Your task to perform on an android device: change your default location settings in chrome Image 0: 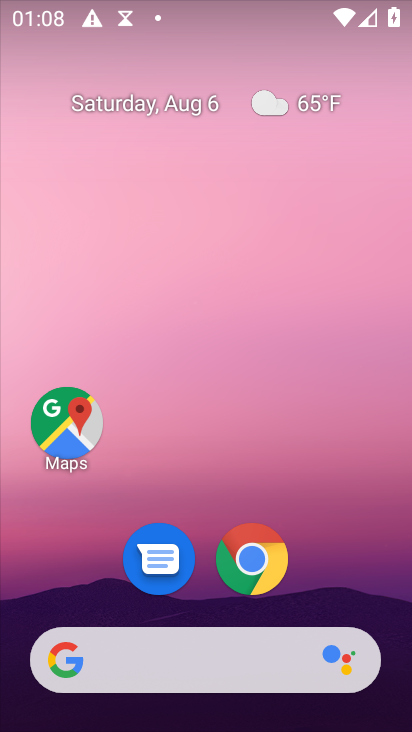
Step 0: click (255, 575)
Your task to perform on an android device: change your default location settings in chrome Image 1: 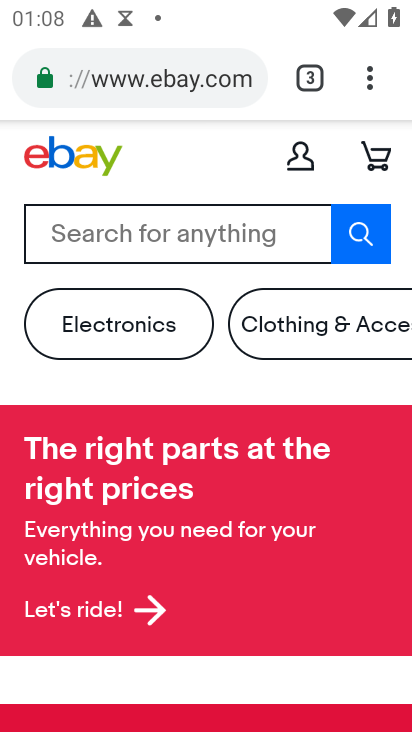
Step 1: click (376, 90)
Your task to perform on an android device: change your default location settings in chrome Image 2: 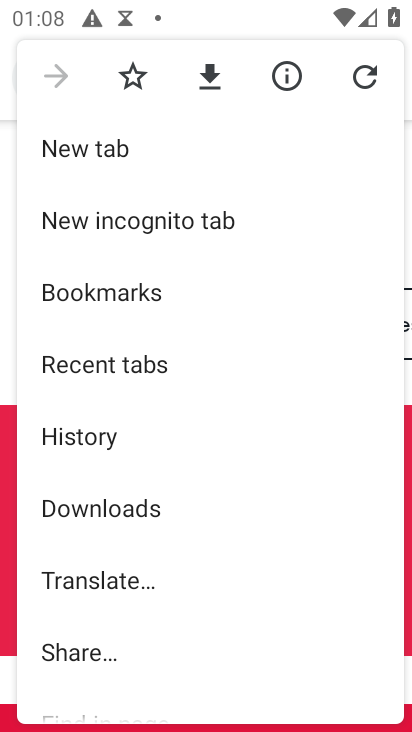
Step 2: drag from (214, 665) to (138, 255)
Your task to perform on an android device: change your default location settings in chrome Image 3: 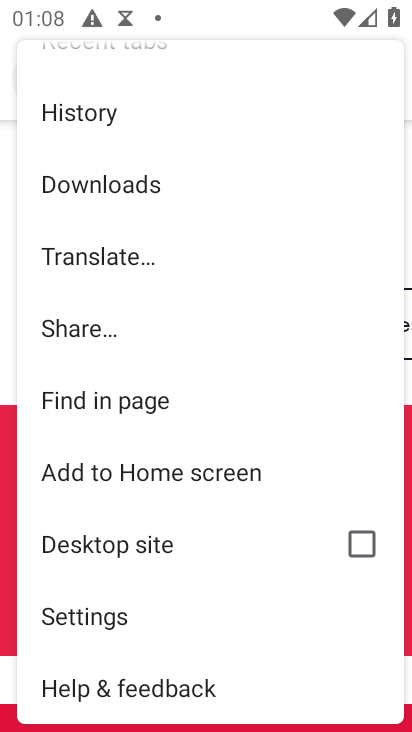
Step 3: click (137, 620)
Your task to perform on an android device: change your default location settings in chrome Image 4: 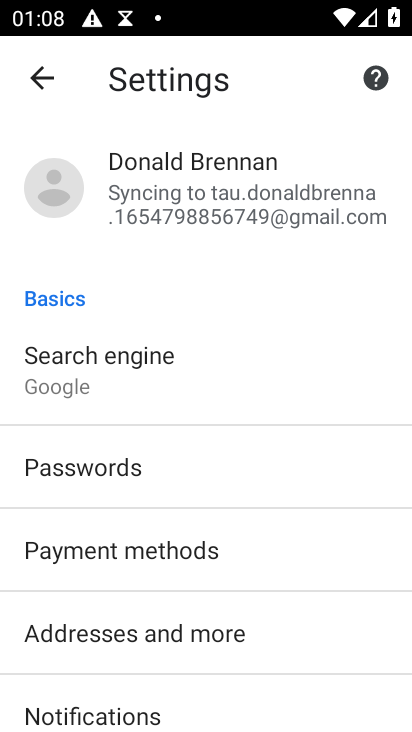
Step 4: drag from (230, 671) to (194, 276)
Your task to perform on an android device: change your default location settings in chrome Image 5: 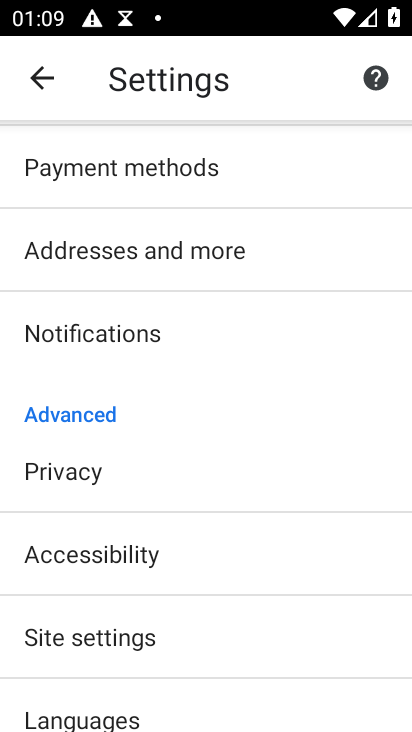
Step 5: click (215, 637)
Your task to perform on an android device: change your default location settings in chrome Image 6: 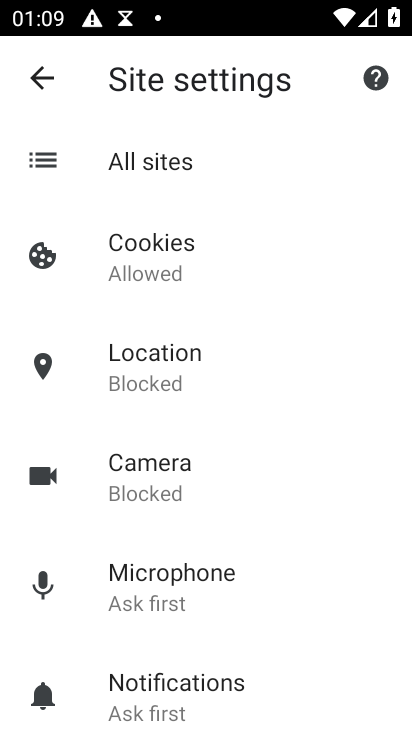
Step 6: click (221, 362)
Your task to perform on an android device: change your default location settings in chrome Image 7: 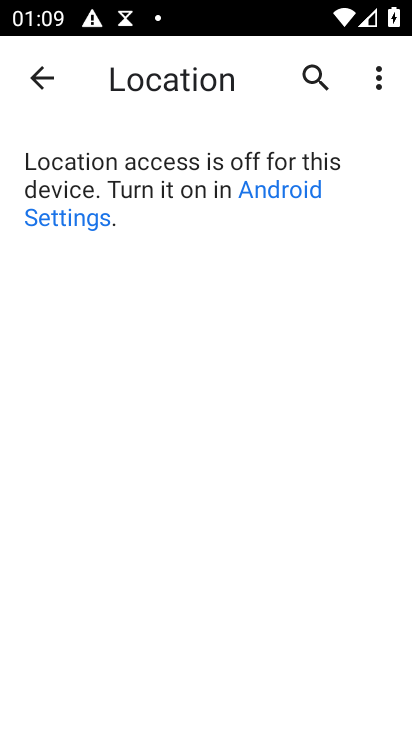
Step 7: task complete